Your task to perform on an android device: open chrome privacy settings Image 0: 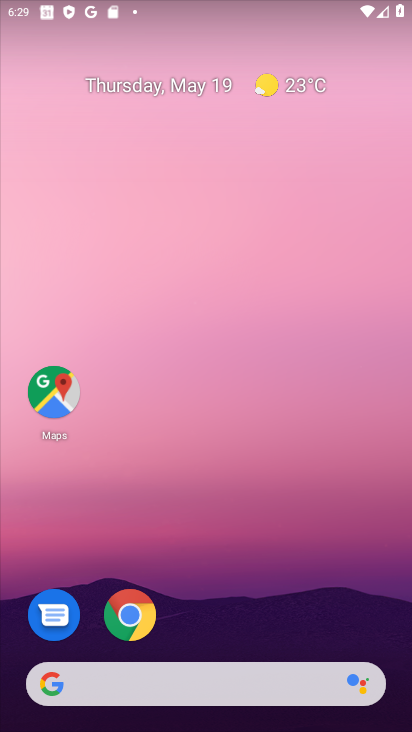
Step 0: drag from (339, 605) to (315, 10)
Your task to perform on an android device: open chrome privacy settings Image 1: 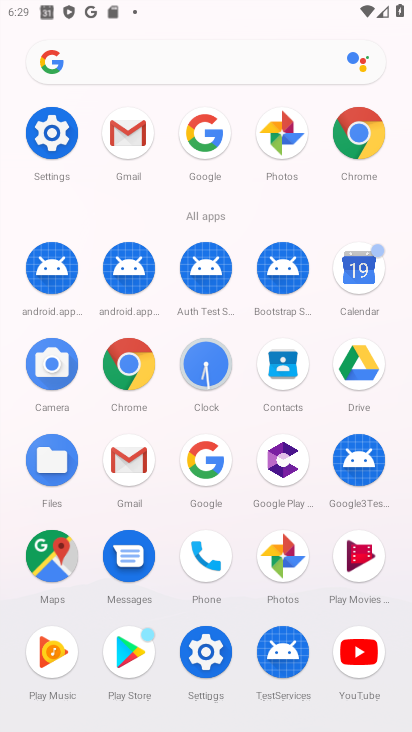
Step 1: click (213, 659)
Your task to perform on an android device: open chrome privacy settings Image 2: 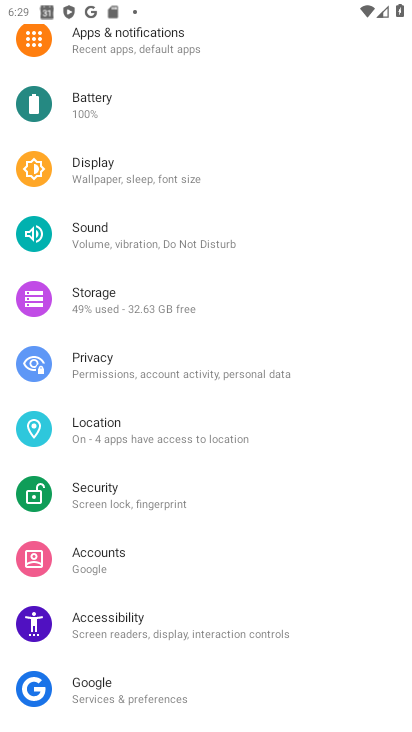
Step 2: press home button
Your task to perform on an android device: open chrome privacy settings Image 3: 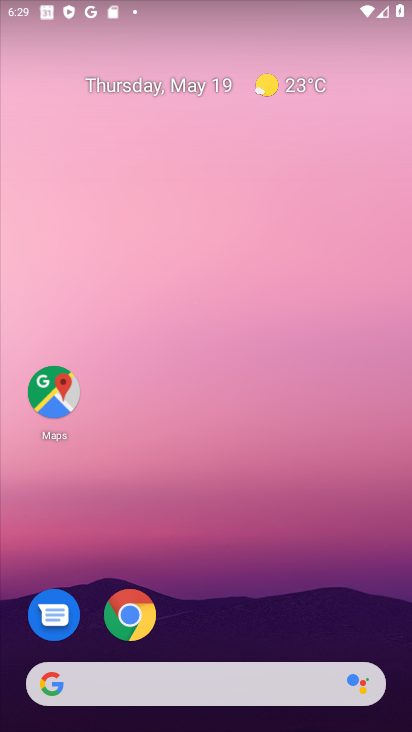
Step 3: click (123, 586)
Your task to perform on an android device: open chrome privacy settings Image 4: 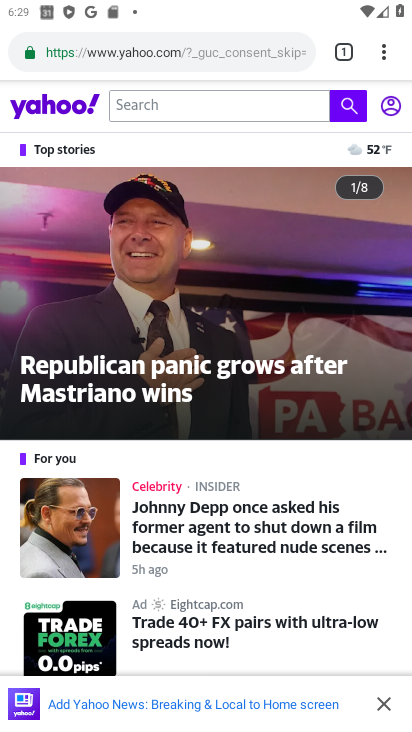
Step 4: press back button
Your task to perform on an android device: open chrome privacy settings Image 5: 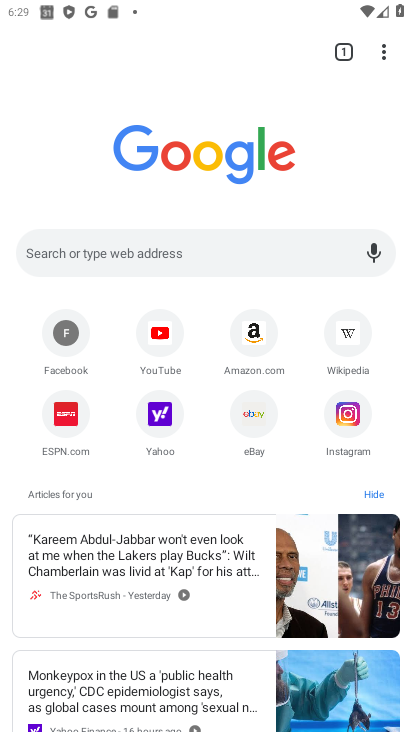
Step 5: click (387, 46)
Your task to perform on an android device: open chrome privacy settings Image 6: 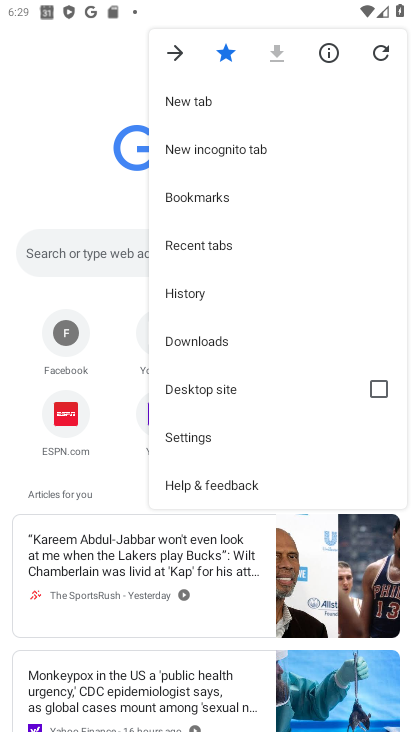
Step 6: click (227, 426)
Your task to perform on an android device: open chrome privacy settings Image 7: 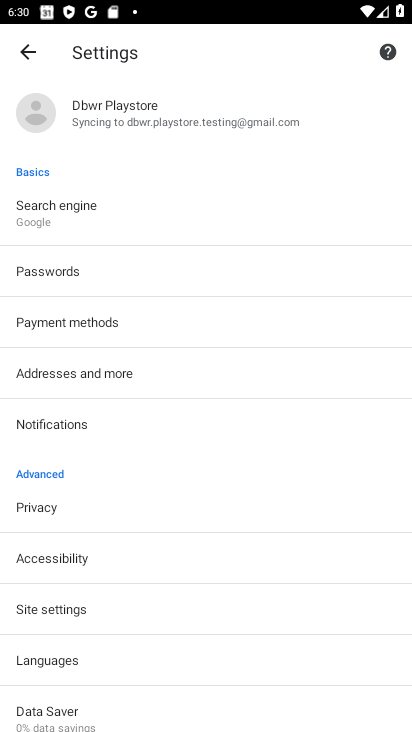
Step 7: click (106, 513)
Your task to perform on an android device: open chrome privacy settings Image 8: 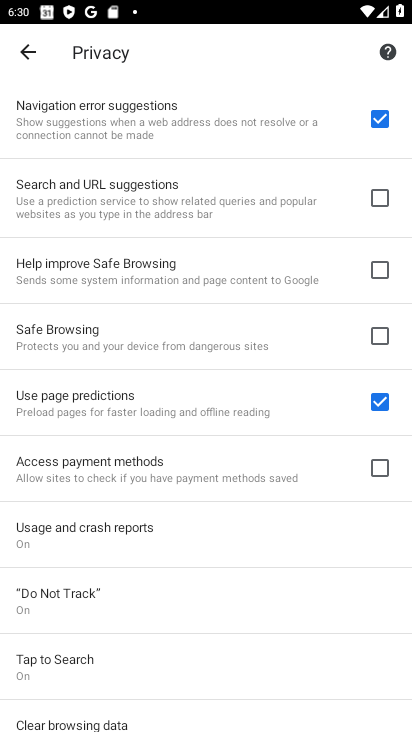
Step 8: task complete